Your task to perform on an android device: Open Google Maps and go to "Timeline" Image 0: 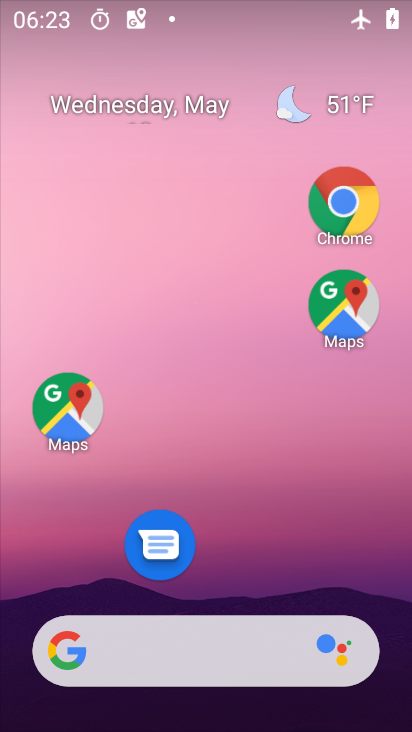
Step 0: click (75, 415)
Your task to perform on an android device: Open Google Maps and go to "Timeline" Image 1: 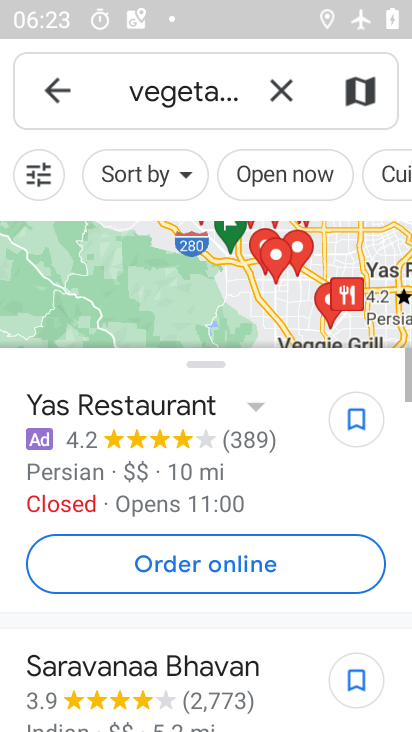
Step 1: click (58, 99)
Your task to perform on an android device: Open Google Maps and go to "Timeline" Image 2: 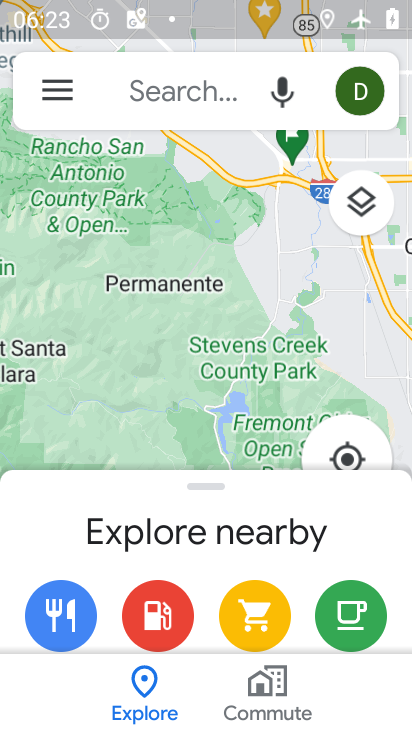
Step 2: click (45, 97)
Your task to perform on an android device: Open Google Maps and go to "Timeline" Image 3: 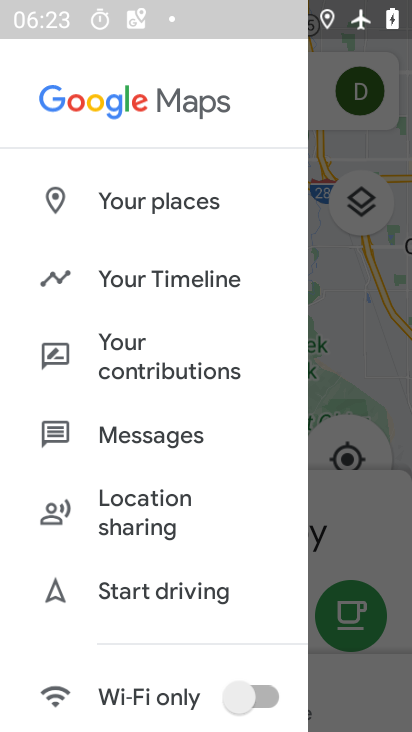
Step 3: click (154, 282)
Your task to perform on an android device: Open Google Maps and go to "Timeline" Image 4: 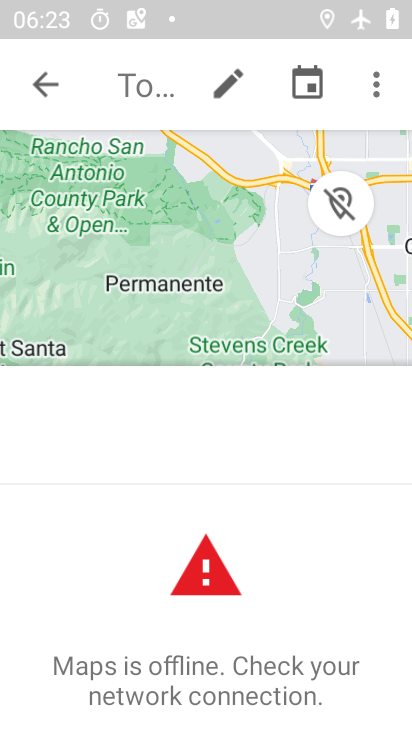
Step 4: task complete